Your task to perform on an android device: set an alarm Image 0: 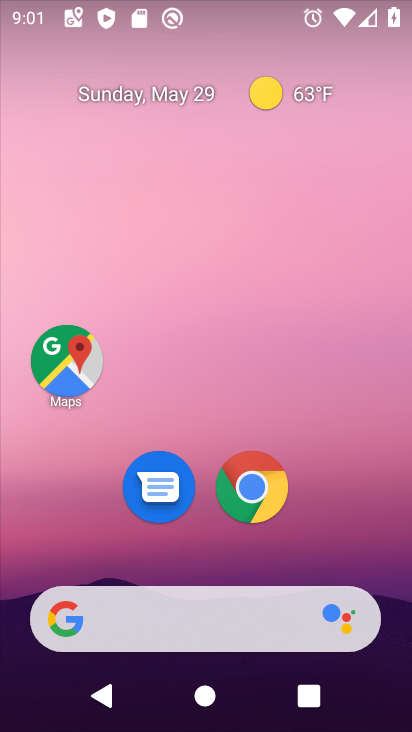
Step 0: drag from (298, 657) to (292, 209)
Your task to perform on an android device: set an alarm Image 1: 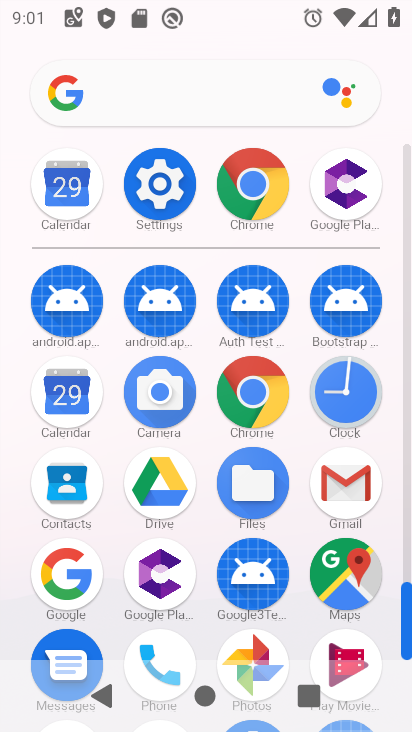
Step 1: click (359, 407)
Your task to perform on an android device: set an alarm Image 2: 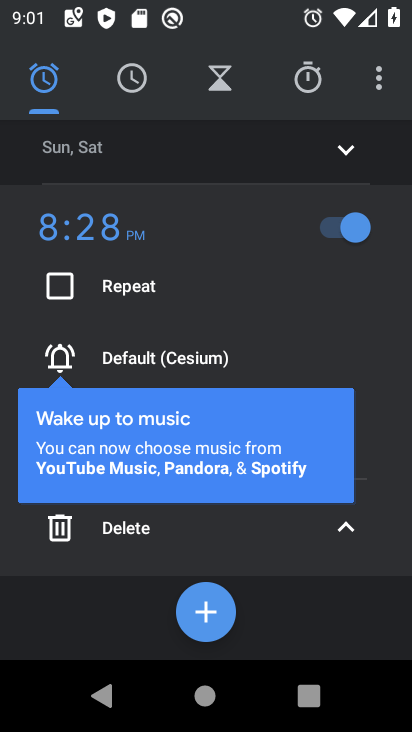
Step 2: click (359, 407)
Your task to perform on an android device: set an alarm Image 3: 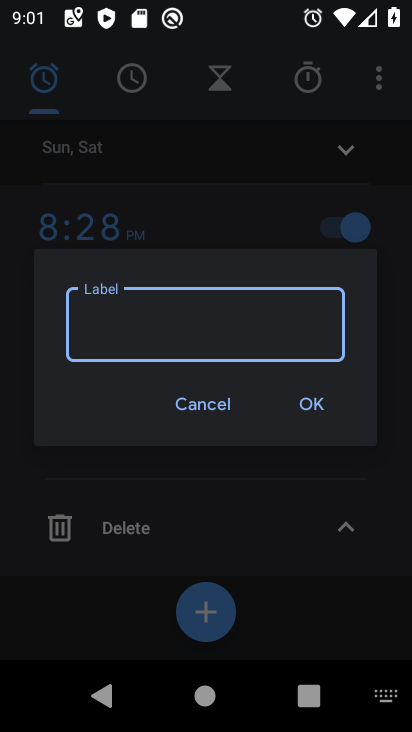
Step 3: click (224, 398)
Your task to perform on an android device: set an alarm Image 4: 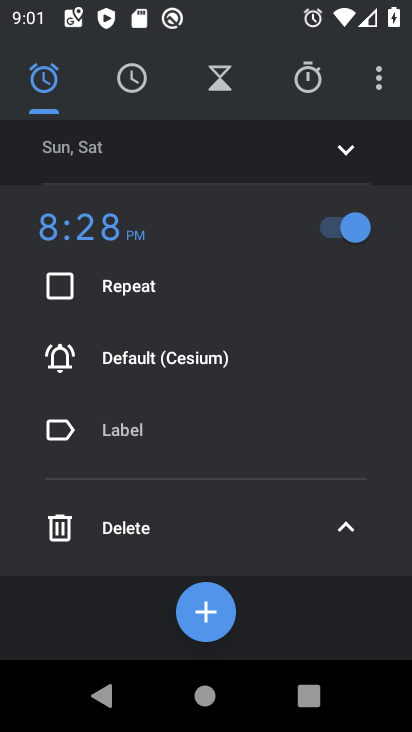
Step 4: click (212, 628)
Your task to perform on an android device: set an alarm Image 5: 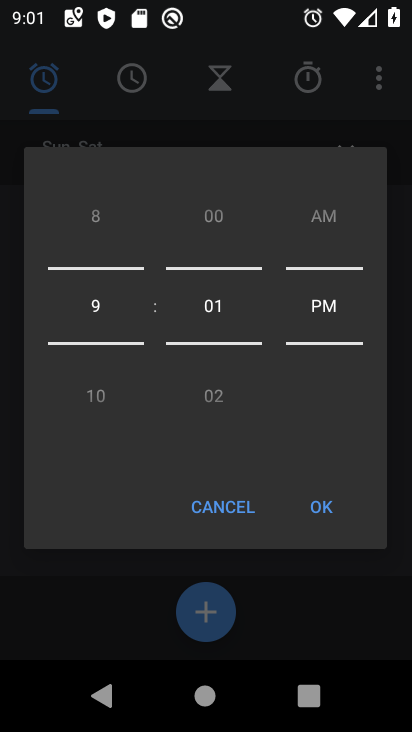
Step 5: click (315, 504)
Your task to perform on an android device: set an alarm Image 6: 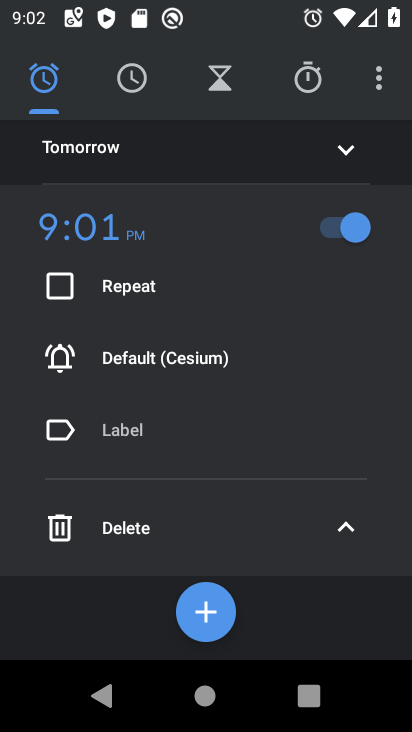
Step 6: task complete